Your task to perform on an android device: turn off javascript in the chrome app Image 0: 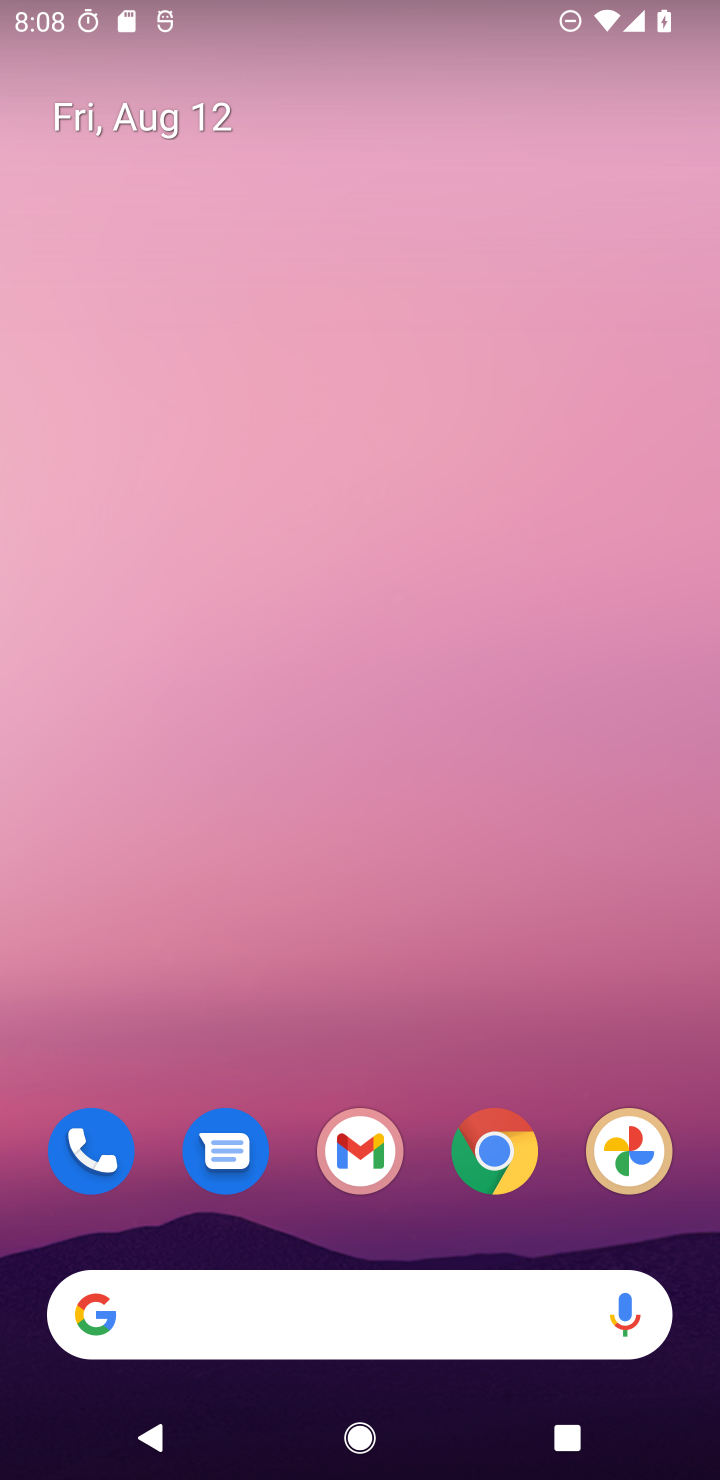
Step 0: drag from (393, 667) to (128, 3)
Your task to perform on an android device: turn off javascript in the chrome app Image 1: 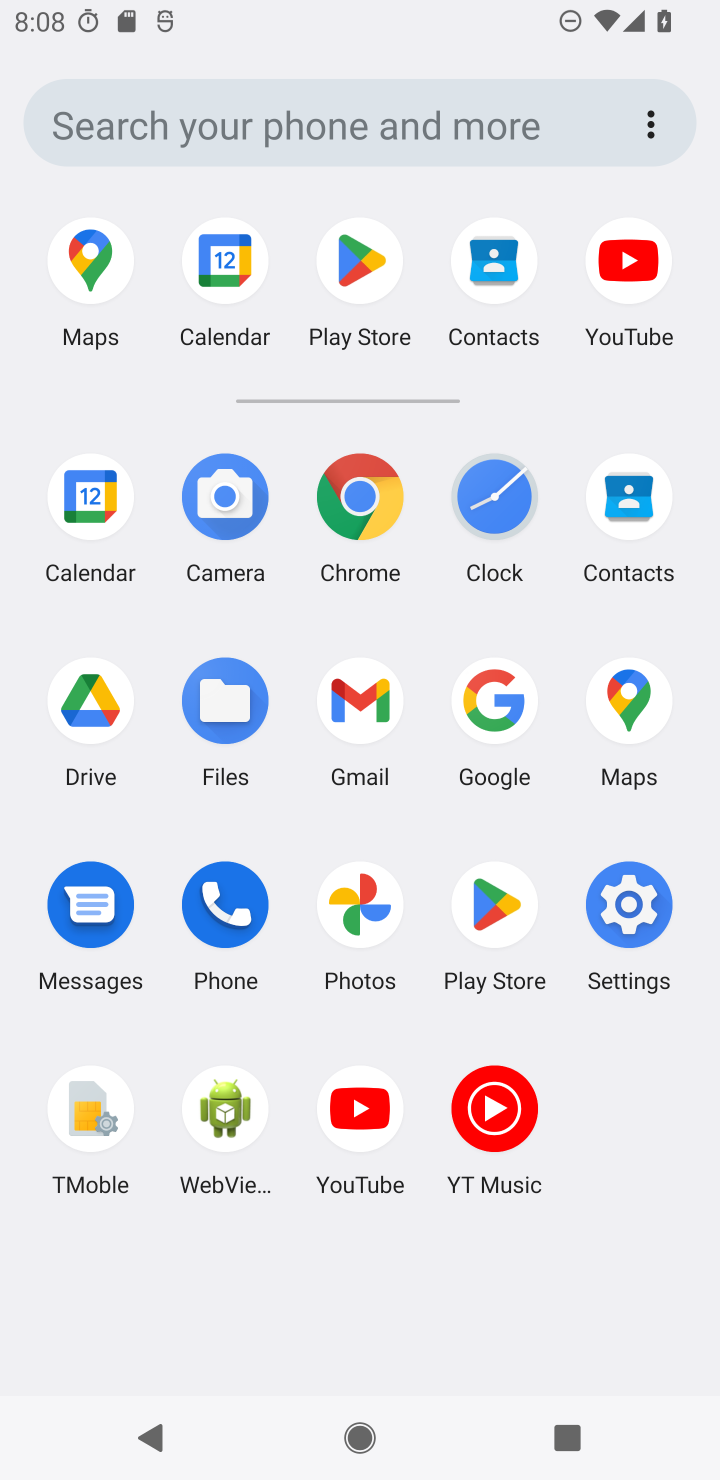
Step 1: click (374, 497)
Your task to perform on an android device: turn off javascript in the chrome app Image 2: 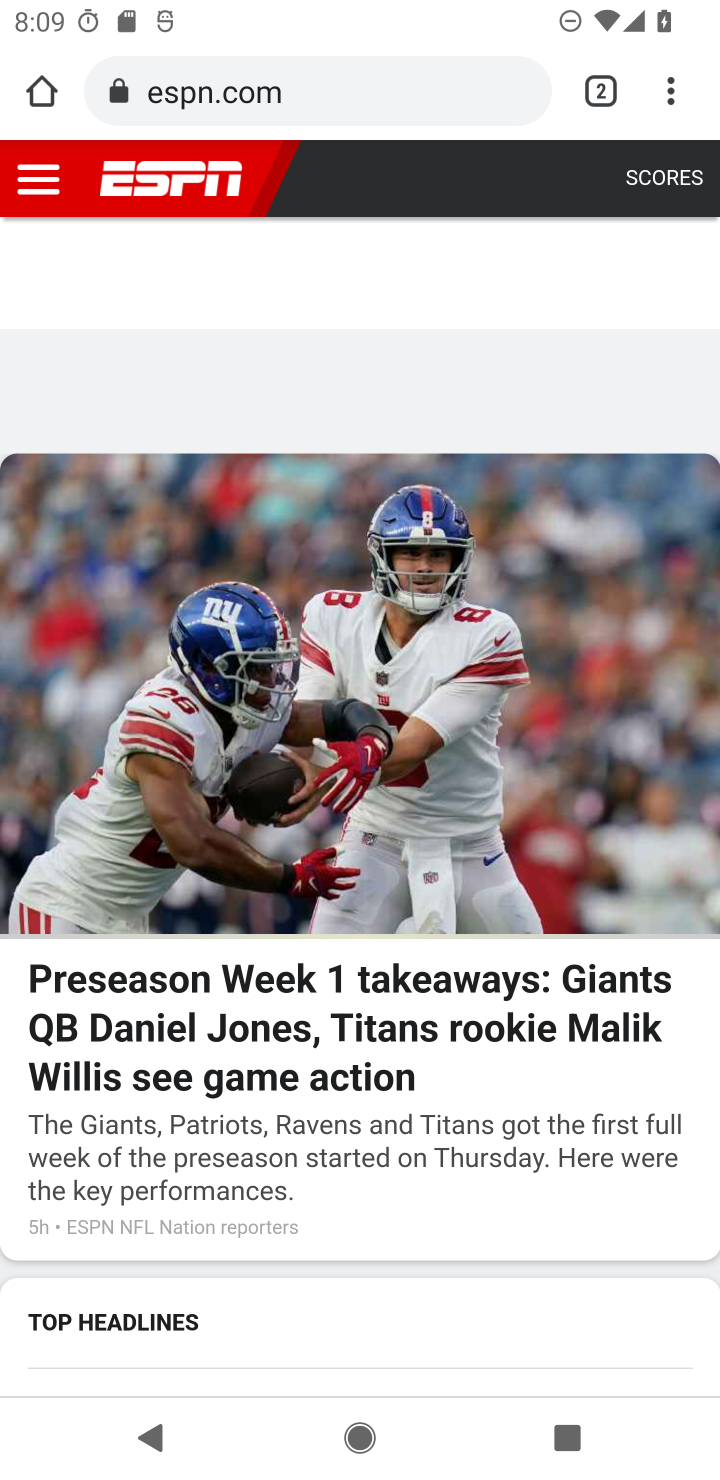
Step 2: click (681, 94)
Your task to perform on an android device: turn off javascript in the chrome app Image 3: 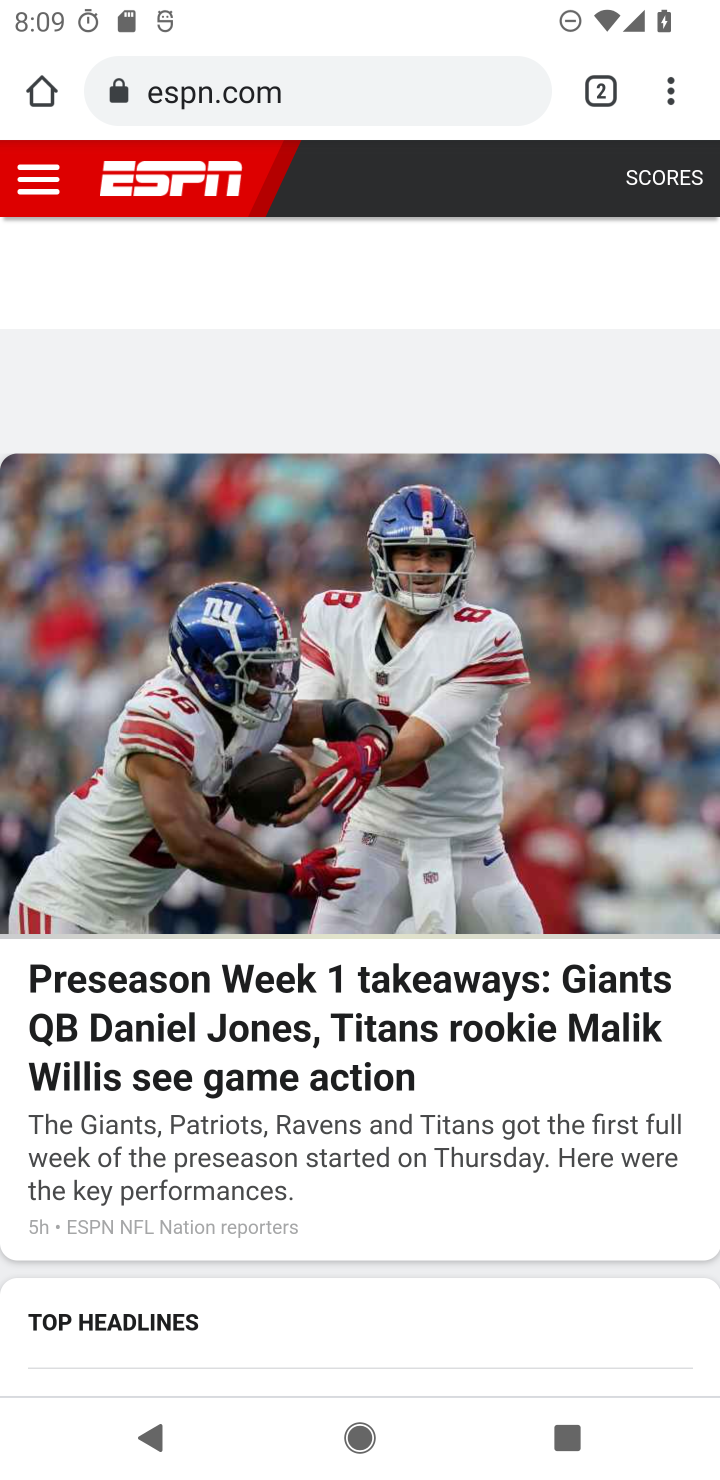
Step 3: drag from (689, 76) to (407, 1289)
Your task to perform on an android device: turn off javascript in the chrome app Image 4: 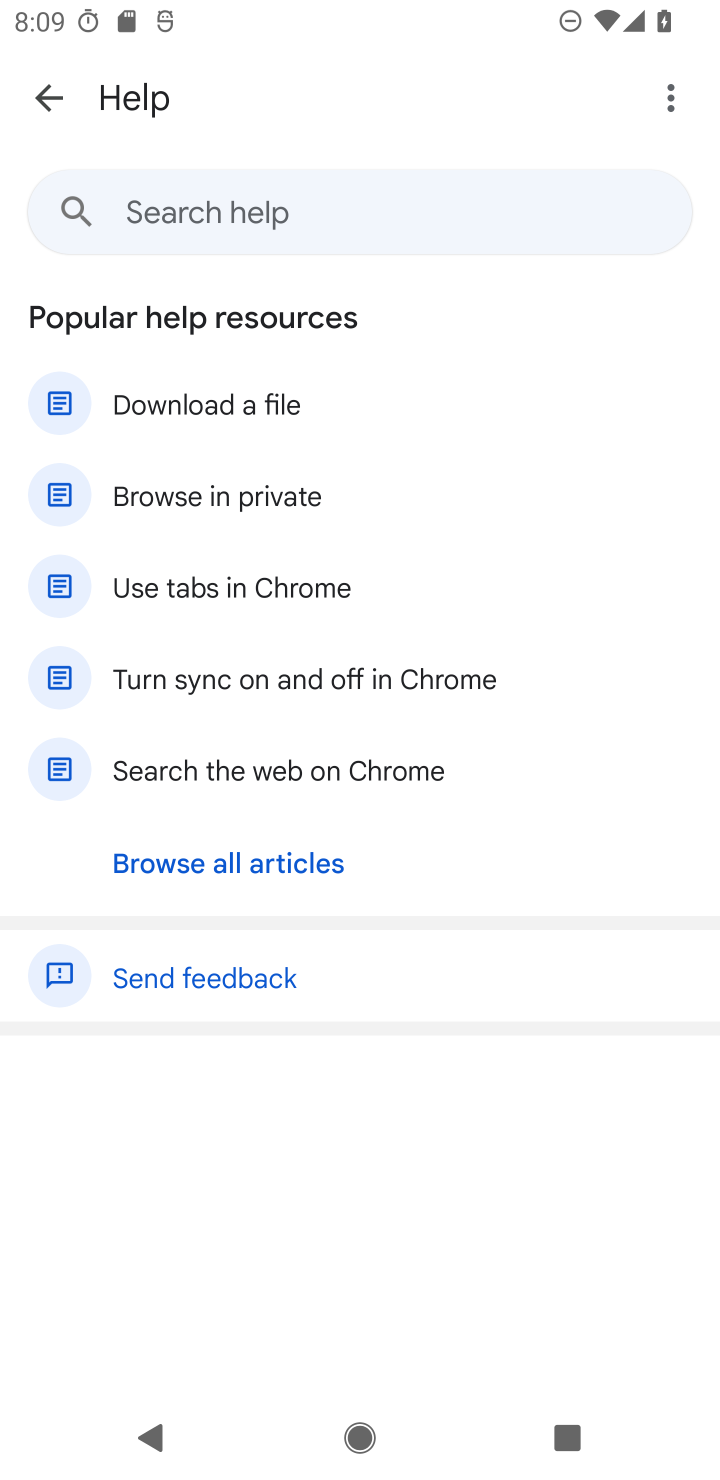
Step 4: click (17, 84)
Your task to perform on an android device: turn off javascript in the chrome app Image 5: 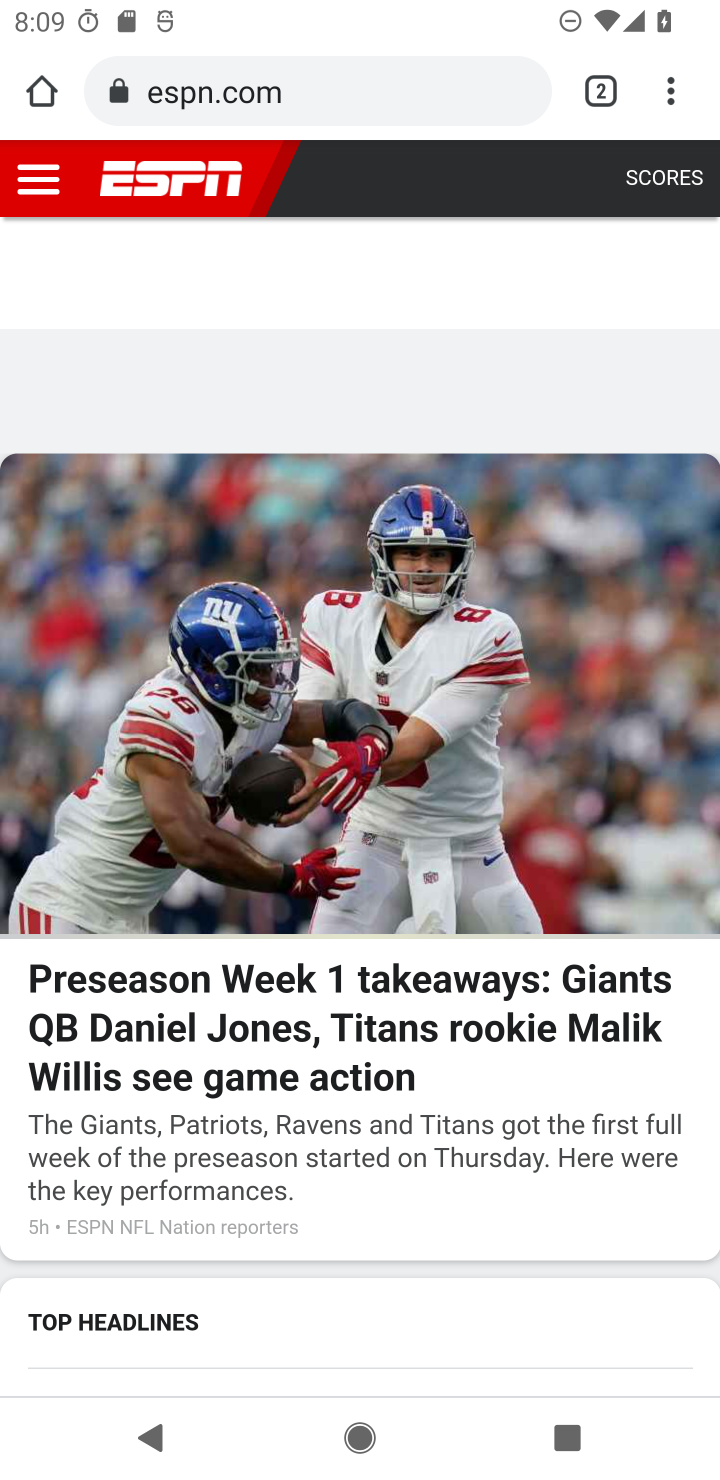
Step 5: drag from (679, 86) to (403, 1237)
Your task to perform on an android device: turn off javascript in the chrome app Image 6: 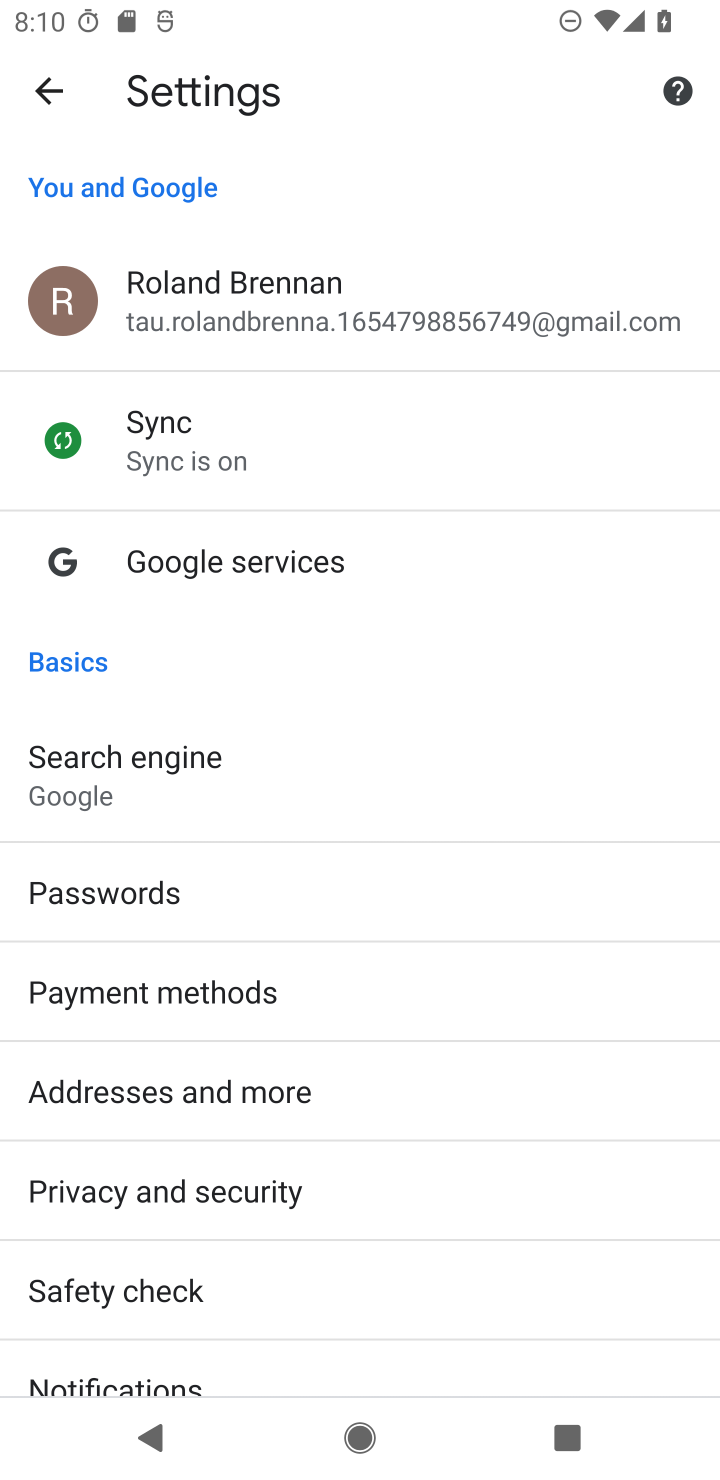
Step 6: drag from (408, 1230) to (461, 281)
Your task to perform on an android device: turn off javascript in the chrome app Image 7: 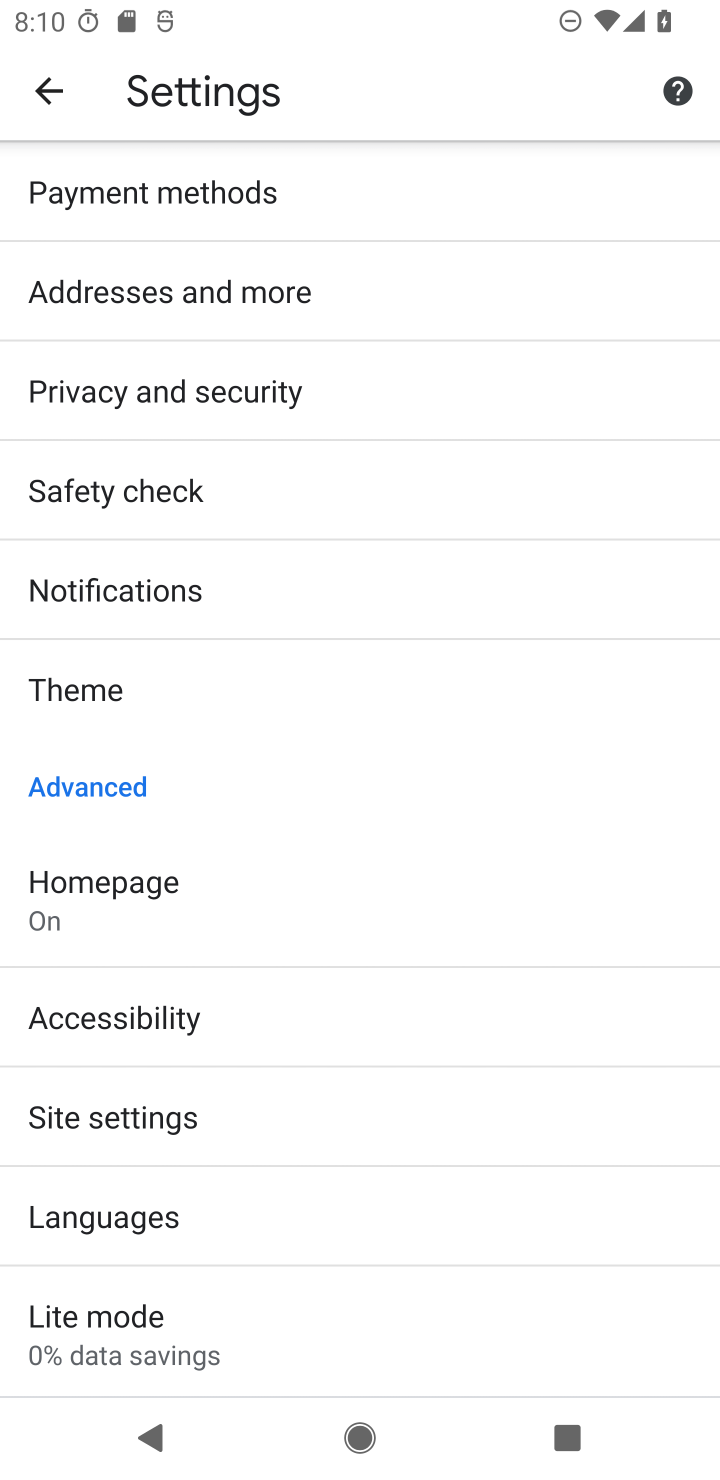
Step 7: click (167, 1111)
Your task to perform on an android device: turn off javascript in the chrome app Image 8: 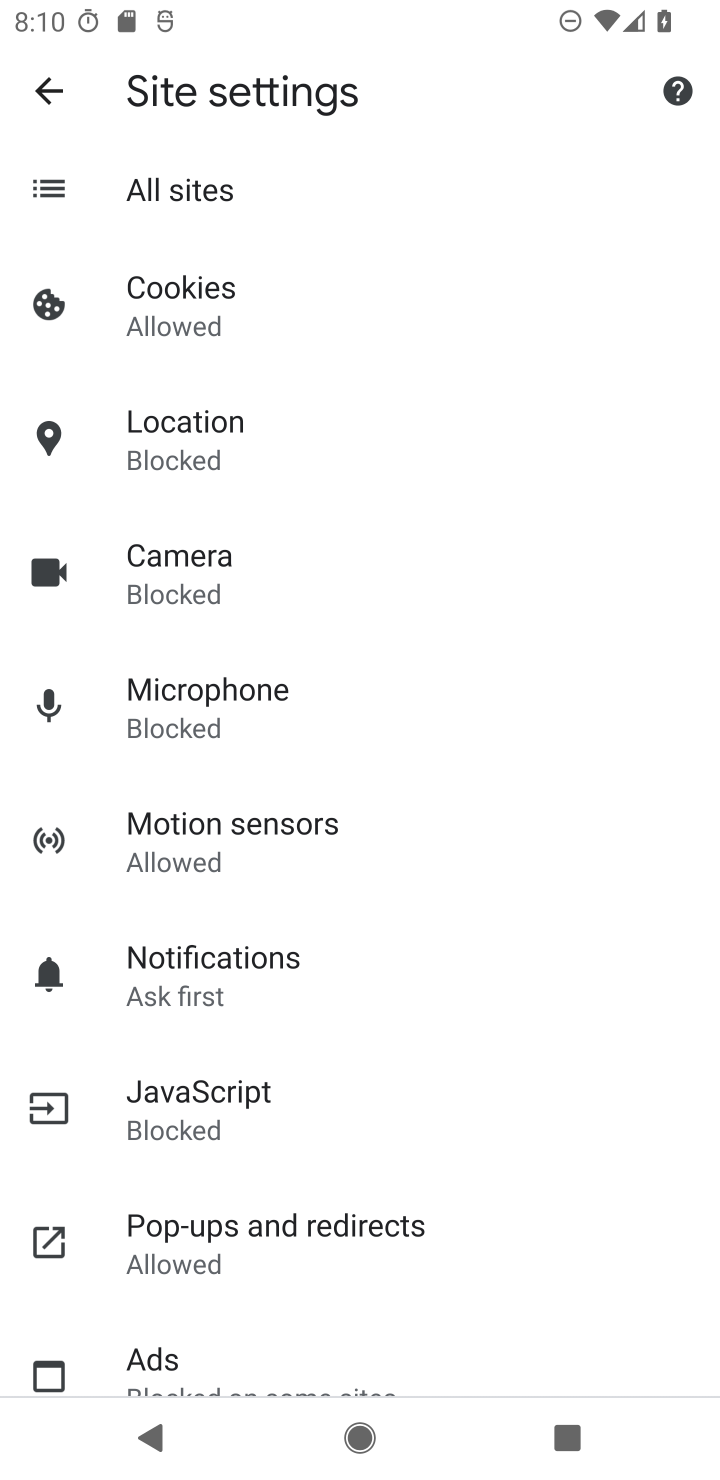
Step 8: click (198, 1114)
Your task to perform on an android device: turn off javascript in the chrome app Image 9: 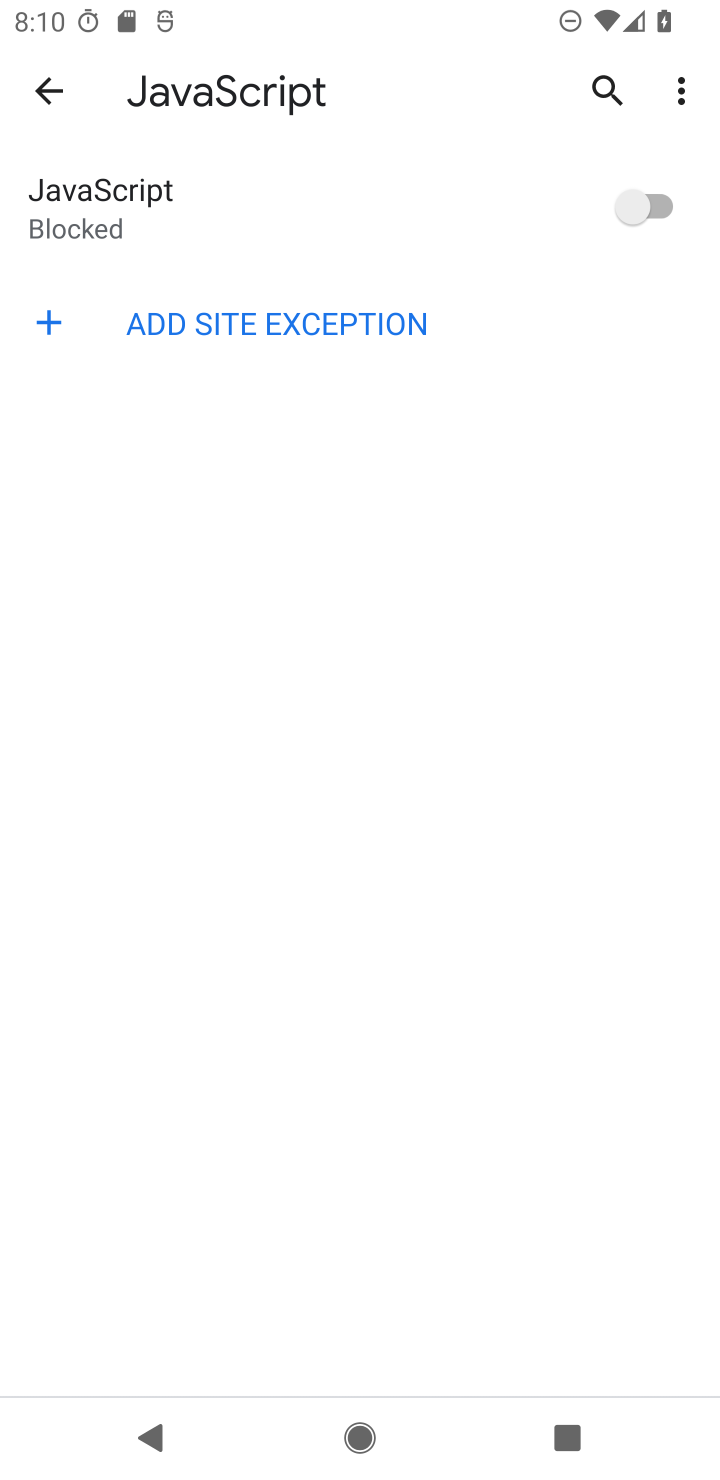
Step 9: task complete